Your task to perform on an android device: Go to privacy settings Image 0: 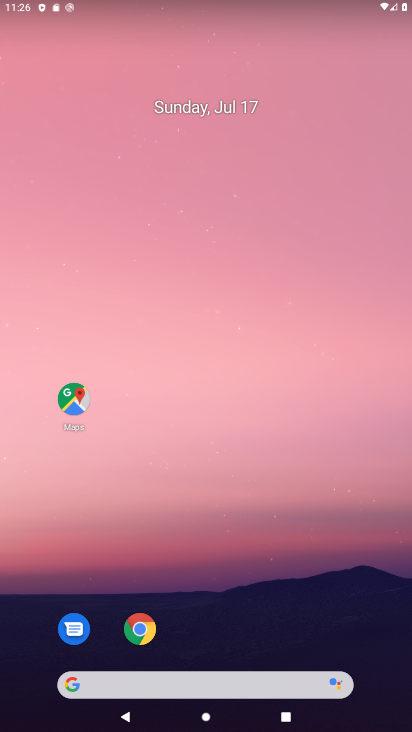
Step 0: drag from (337, 647) to (354, 97)
Your task to perform on an android device: Go to privacy settings Image 1: 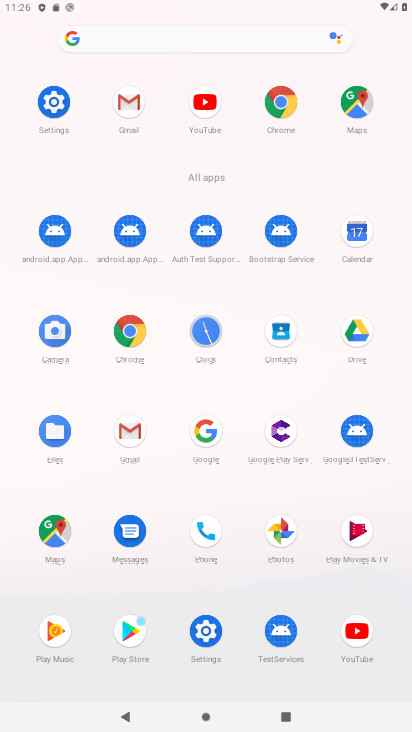
Step 1: click (211, 630)
Your task to perform on an android device: Go to privacy settings Image 2: 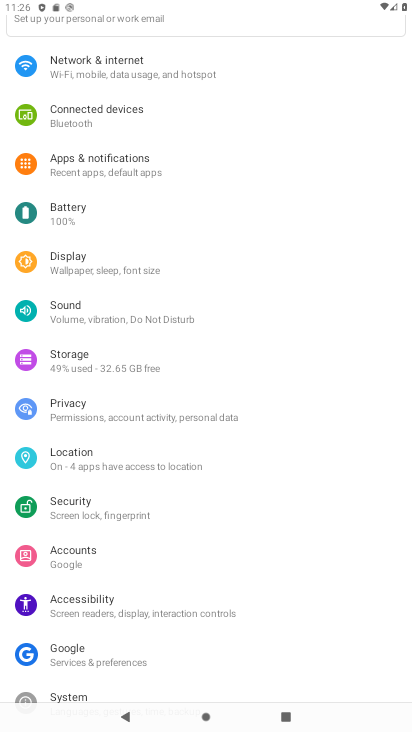
Step 2: click (58, 424)
Your task to perform on an android device: Go to privacy settings Image 3: 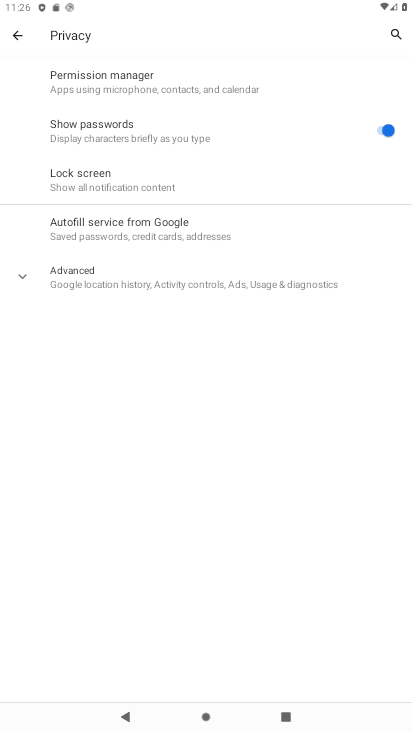
Step 3: task complete